Your task to perform on an android device: turn off translation in the chrome app Image 0: 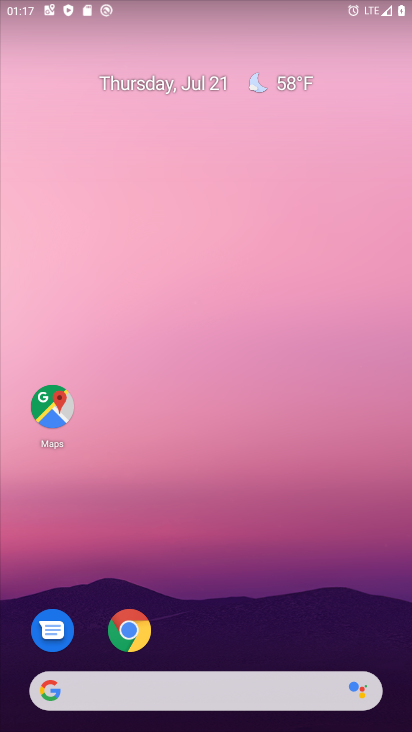
Step 0: click (130, 631)
Your task to perform on an android device: turn off translation in the chrome app Image 1: 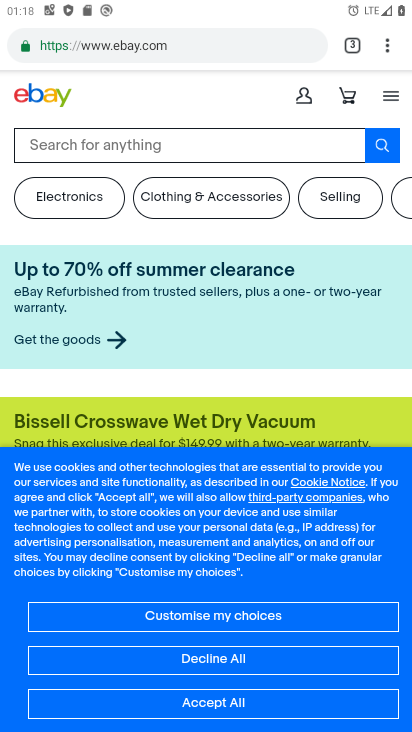
Step 1: click (398, 55)
Your task to perform on an android device: turn off translation in the chrome app Image 2: 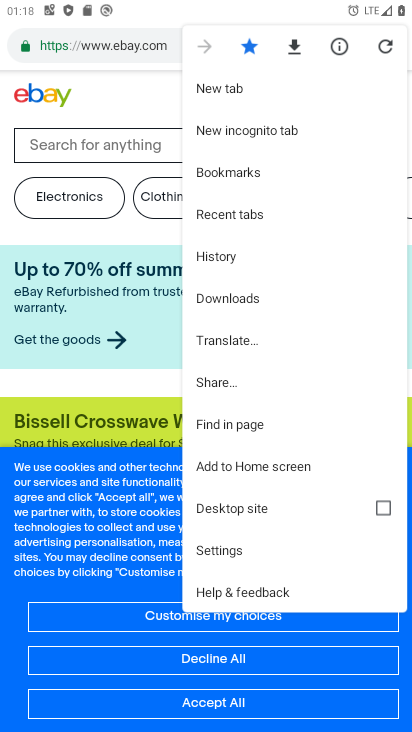
Step 2: click (215, 550)
Your task to perform on an android device: turn off translation in the chrome app Image 3: 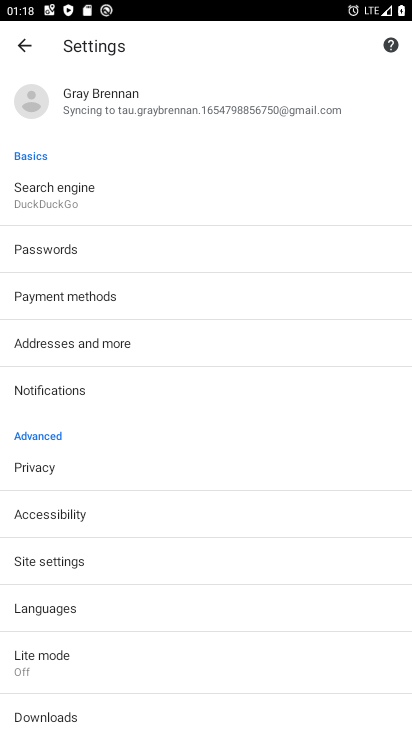
Step 3: click (38, 622)
Your task to perform on an android device: turn off translation in the chrome app Image 4: 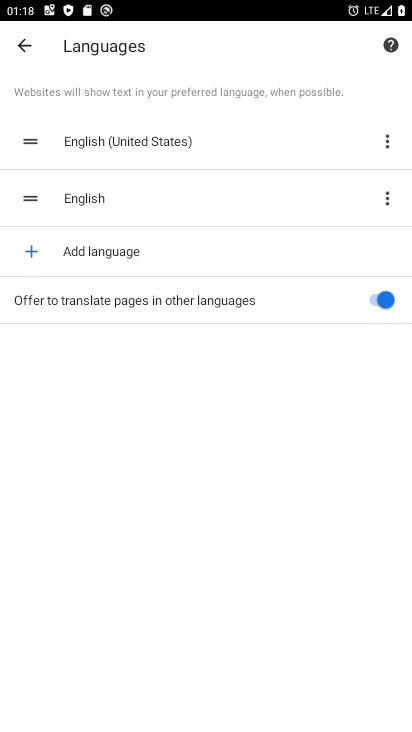
Step 4: click (398, 300)
Your task to perform on an android device: turn off translation in the chrome app Image 5: 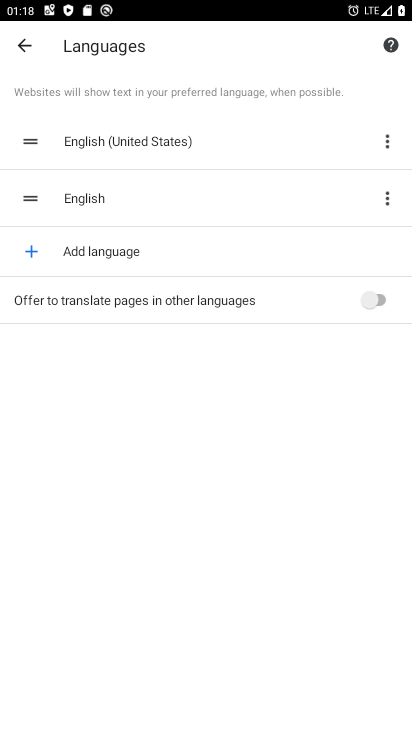
Step 5: task complete